Your task to perform on an android device: empty trash in google photos Image 0: 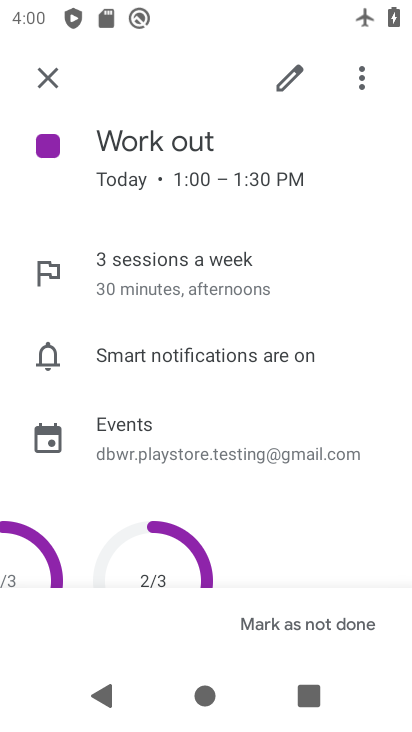
Step 0: press back button
Your task to perform on an android device: empty trash in google photos Image 1: 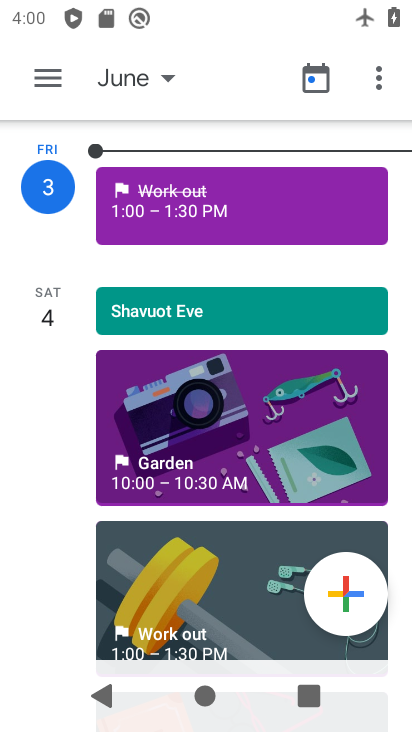
Step 1: press back button
Your task to perform on an android device: empty trash in google photos Image 2: 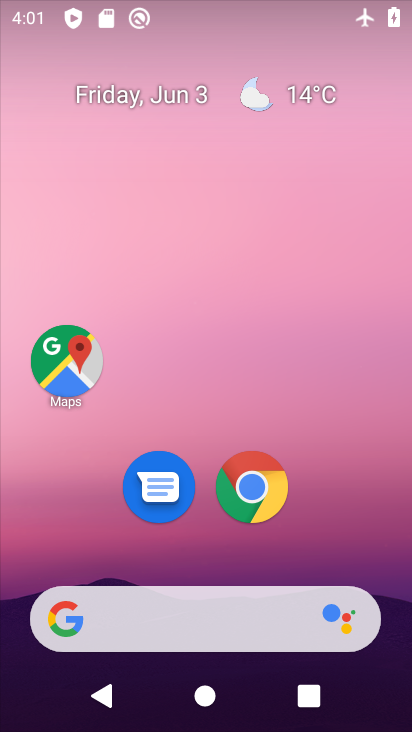
Step 2: drag from (158, 583) to (233, 37)
Your task to perform on an android device: empty trash in google photos Image 3: 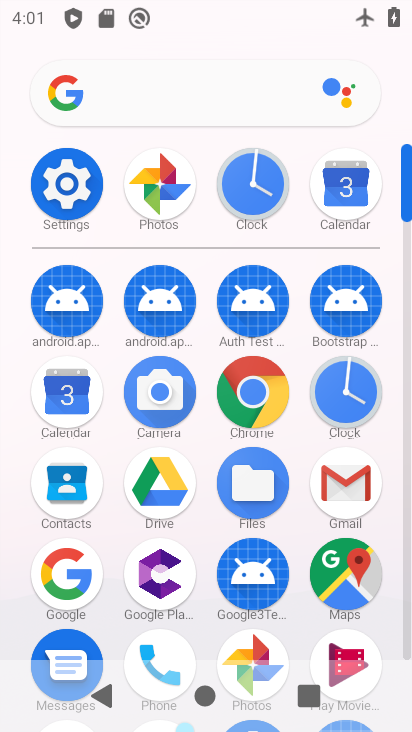
Step 3: click (255, 653)
Your task to perform on an android device: empty trash in google photos Image 4: 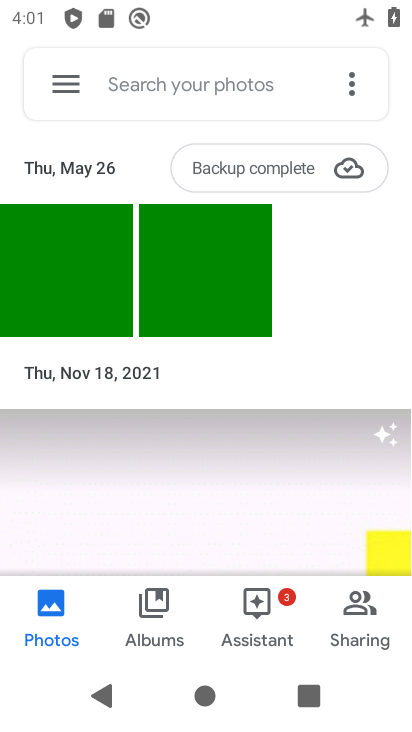
Step 4: click (78, 78)
Your task to perform on an android device: empty trash in google photos Image 5: 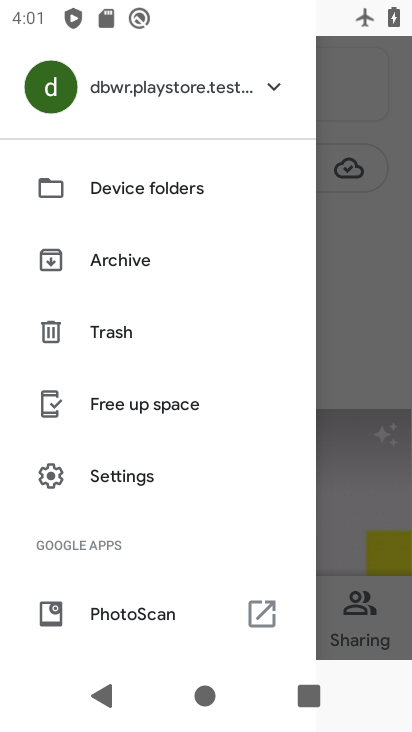
Step 5: click (111, 343)
Your task to perform on an android device: empty trash in google photos Image 6: 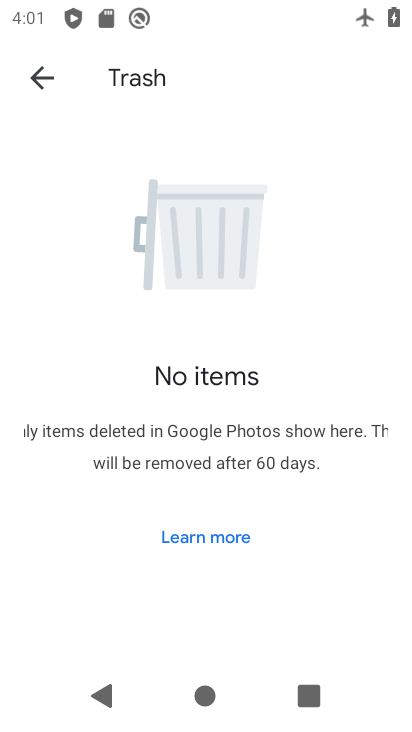
Step 6: task complete